Your task to perform on an android device: Open Reddit.com Image 0: 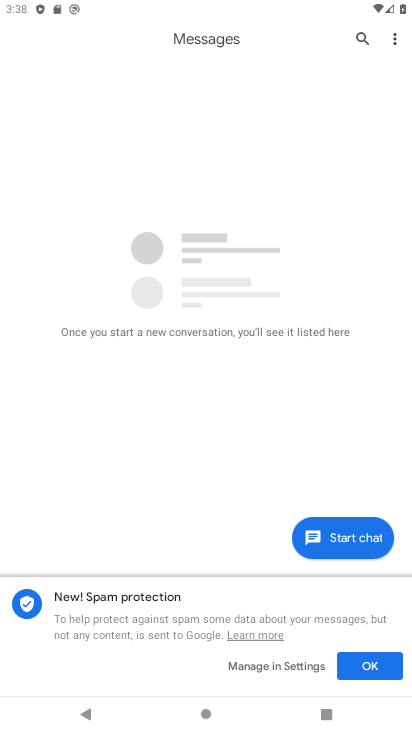
Step 0: press back button
Your task to perform on an android device: Open Reddit.com Image 1: 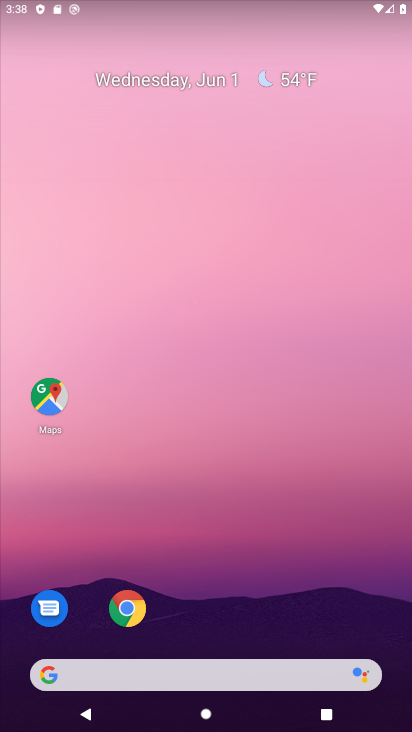
Step 1: click (137, 611)
Your task to perform on an android device: Open Reddit.com Image 2: 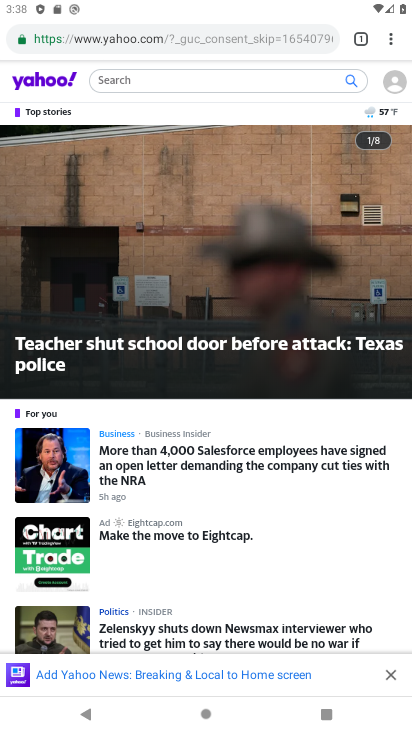
Step 2: click (306, 46)
Your task to perform on an android device: Open Reddit.com Image 3: 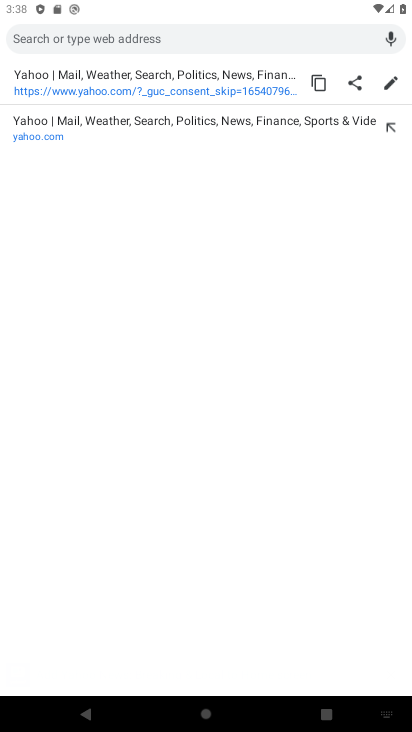
Step 3: type "reddit.com"
Your task to perform on an android device: Open Reddit.com Image 4: 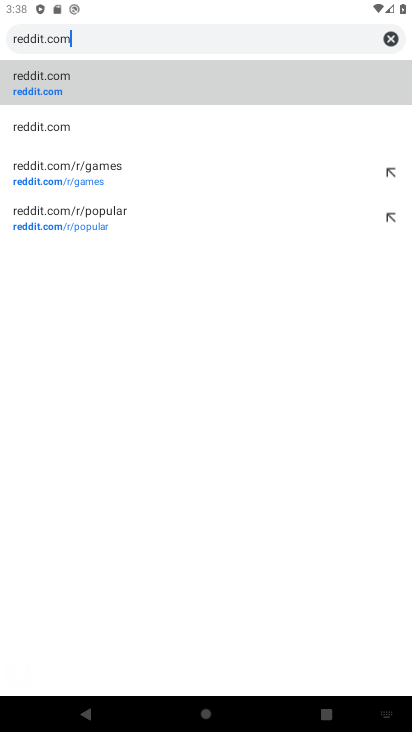
Step 4: click (95, 98)
Your task to perform on an android device: Open Reddit.com Image 5: 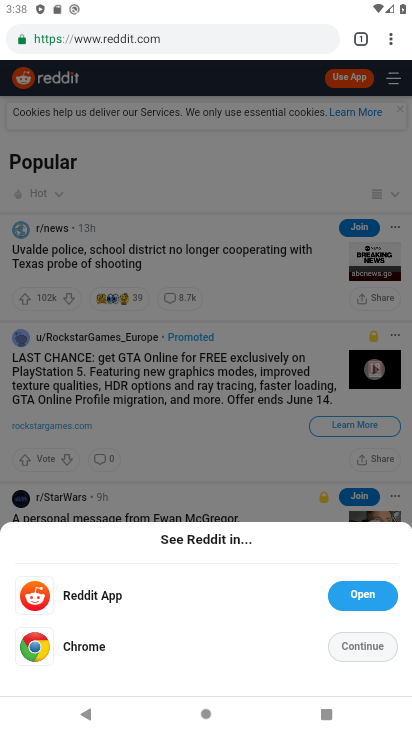
Step 5: click (358, 644)
Your task to perform on an android device: Open Reddit.com Image 6: 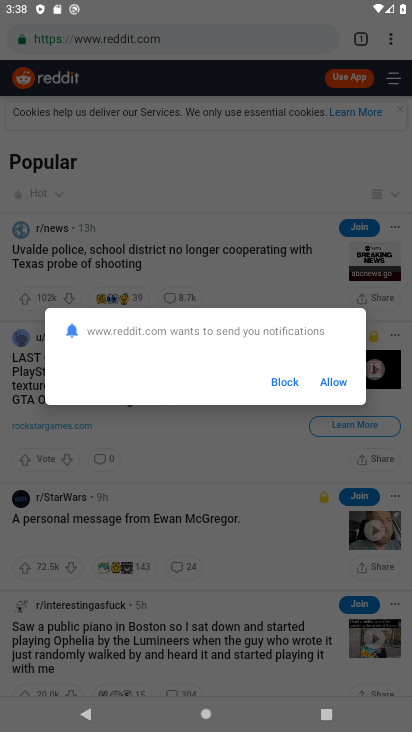
Step 6: click (301, 383)
Your task to perform on an android device: Open Reddit.com Image 7: 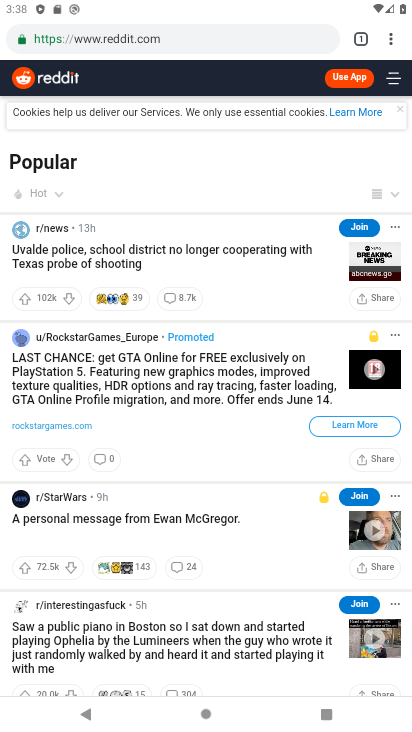
Step 7: task complete